Your task to perform on an android device: snooze an email in the gmail app Image 0: 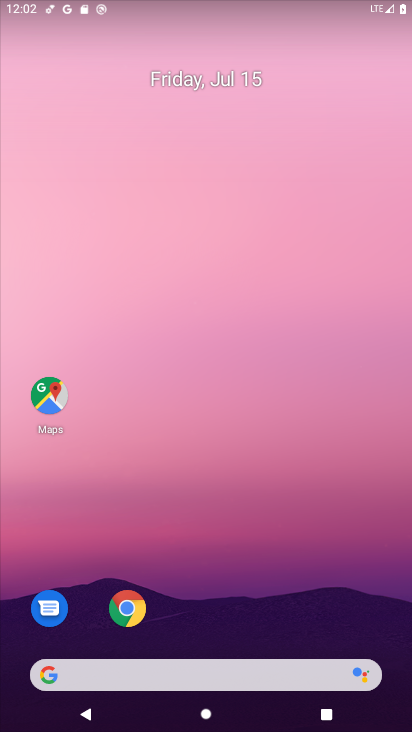
Step 0: drag from (221, 568) to (114, 33)
Your task to perform on an android device: snooze an email in the gmail app Image 1: 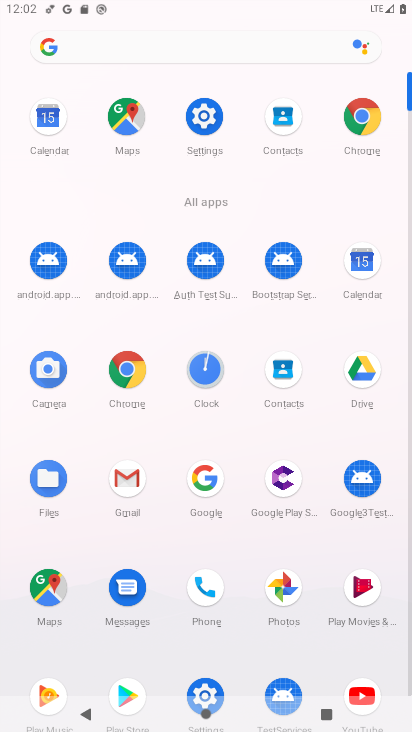
Step 1: click (126, 482)
Your task to perform on an android device: snooze an email in the gmail app Image 2: 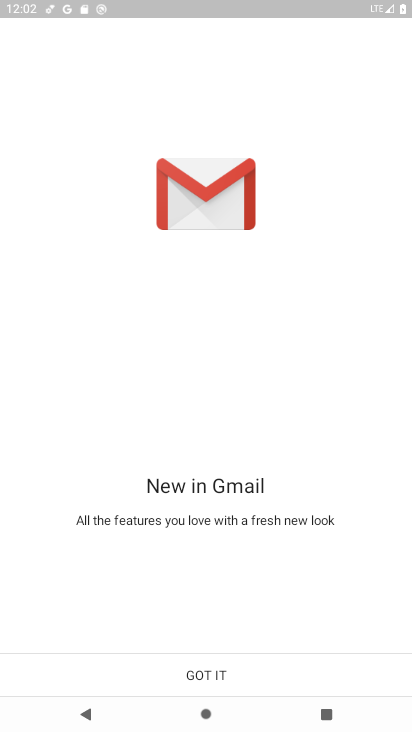
Step 2: click (208, 675)
Your task to perform on an android device: snooze an email in the gmail app Image 3: 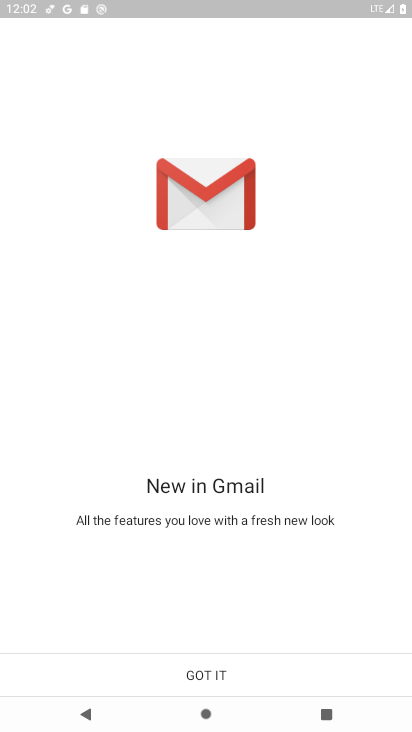
Step 3: click (208, 675)
Your task to perform on an android device: snooze an email in the gmail app Image 4: 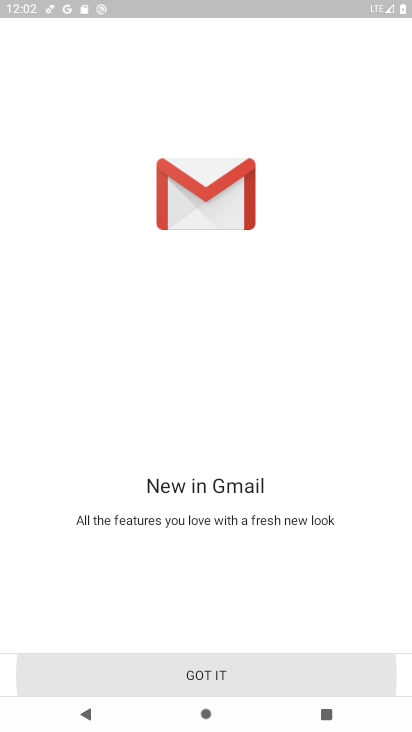
Step 4: click (208, 675)
Your task to perform on an android device: snooze an email in the gmail app Image 5: 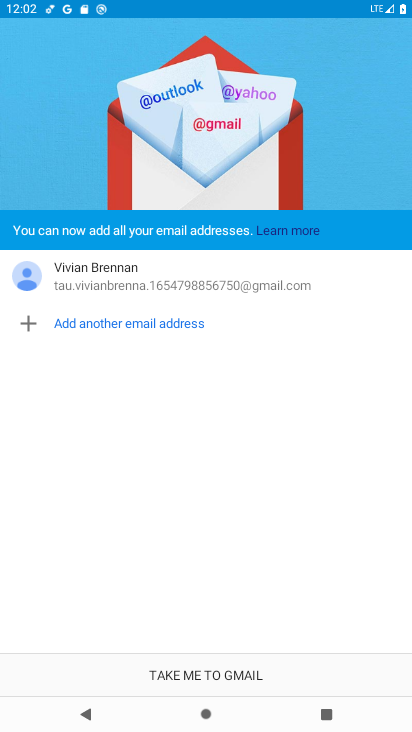
Step 5: click (208, 675)
Your task to perform on an android device: snooze an email in the gmail app Image 6: 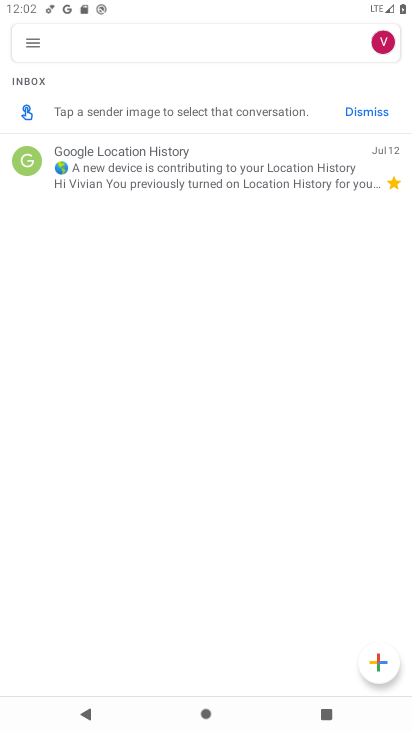
Step 6: click (112, 152)
Your task to perform on an android device: snooze an email in the gmail app Image 7: 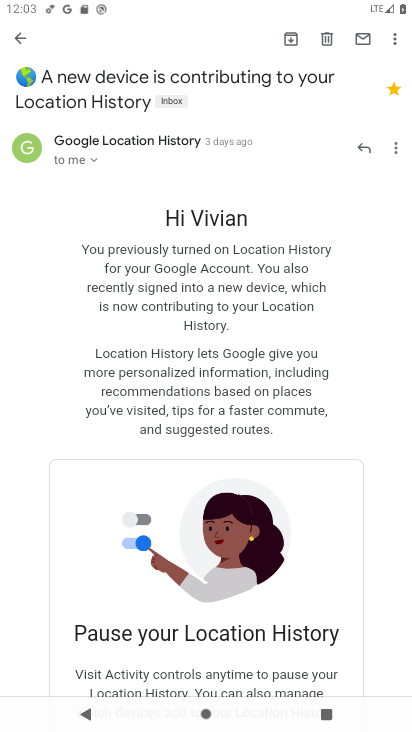
Step 7: click (396, 37)
Your task to perform on an android device: snooze an email in the gmail app Image 8: 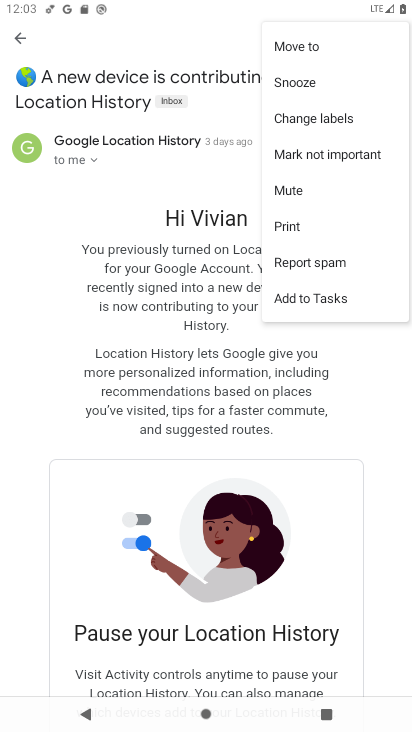
Step 8: click (311, 80)
Your task to perform on an android device: snooze an email in the gmail app Image 9: 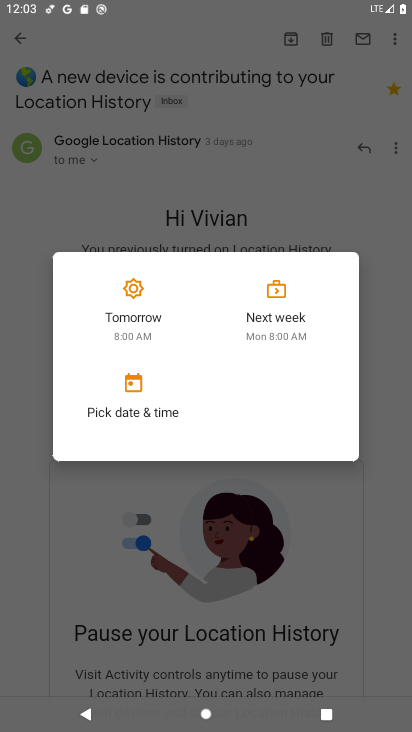
Step 9: click (135, 305)
Your task to perform on an android device: snooze an email in the gmail app Image 10: 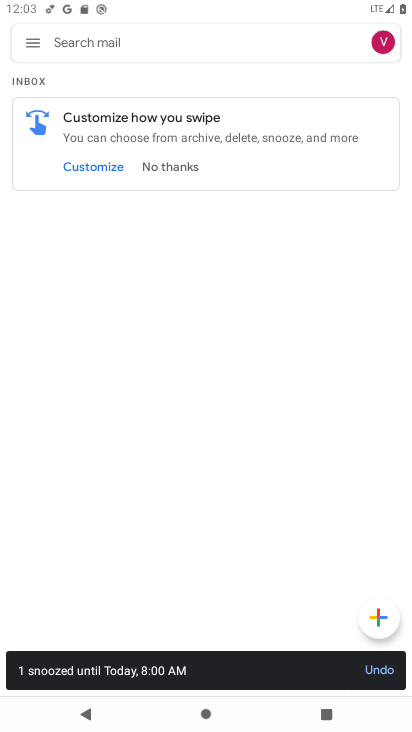
Step 10: task complete